Your task to perform on an android device: turn off translation in the chrome app Image 0: 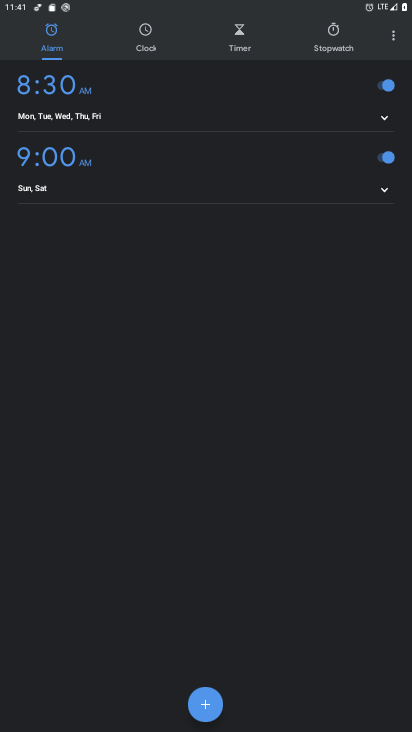
Step 0: press home button
Your task to perform on an android device: turn off translation in the chrome app Image 1: 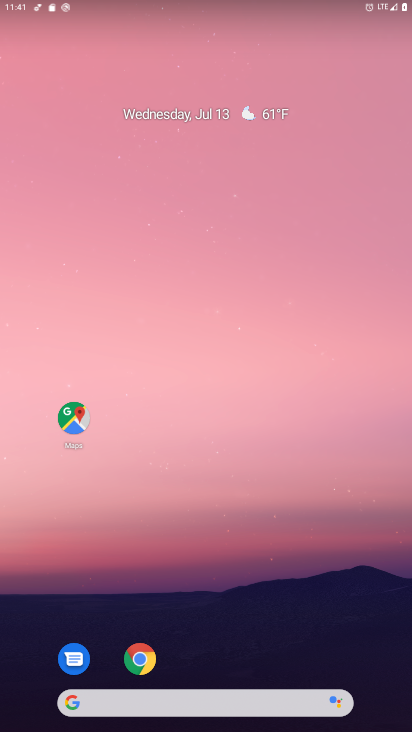
Step 1: click (138, 655)
Your task to perform on an android device: turn off translation in the chrome app Image 2: 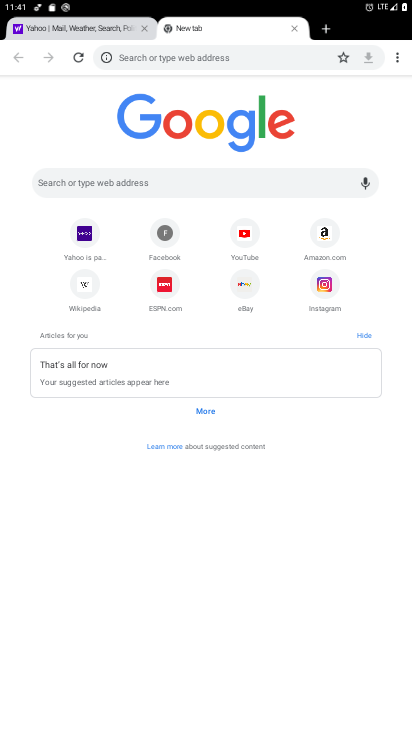
Step 2: click (397, 53)
Your task to perform on an android device: turn off translation in the chrome app Image 3: 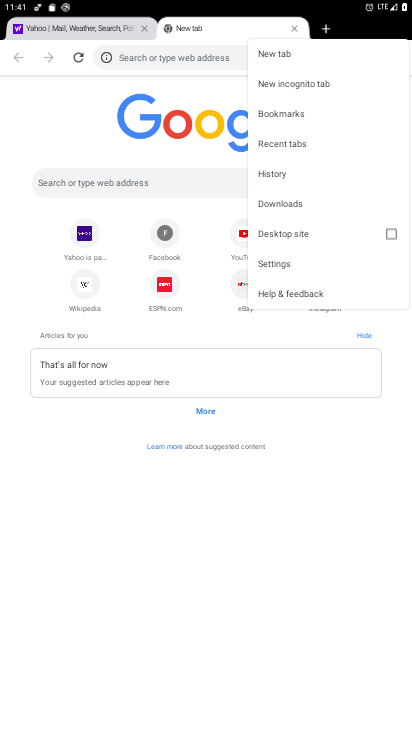
Step 3: click (297, 260)
Your task to perform on an android device: turn off translation in the chrome app Image 4: 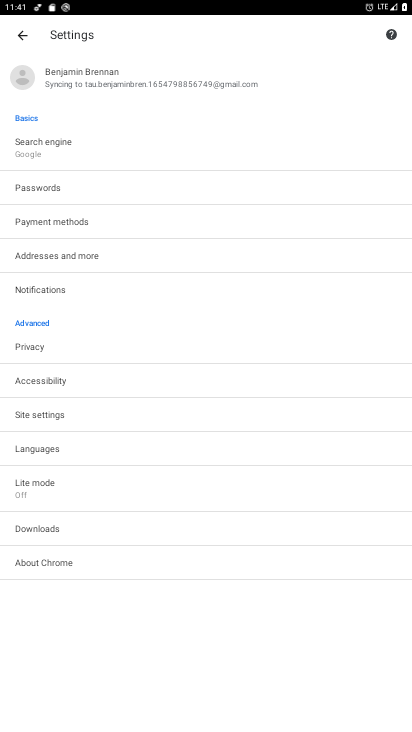
Step 4: click (67, 447)
Your task to perform on an android device: turn off translation in the chrome app Image 5: 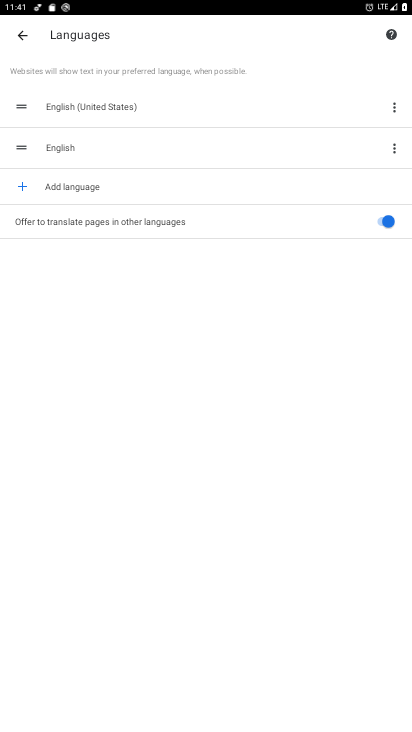
Step 5: click (380, 216)
Your task to perform on an android device: turn off translation in the chrome app Image 6: 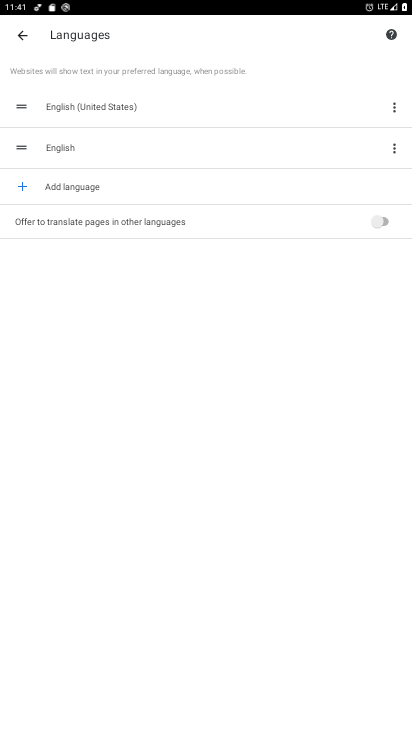
Step 6: task complete